Your task to perform on an android device: change the clock style Image 0: 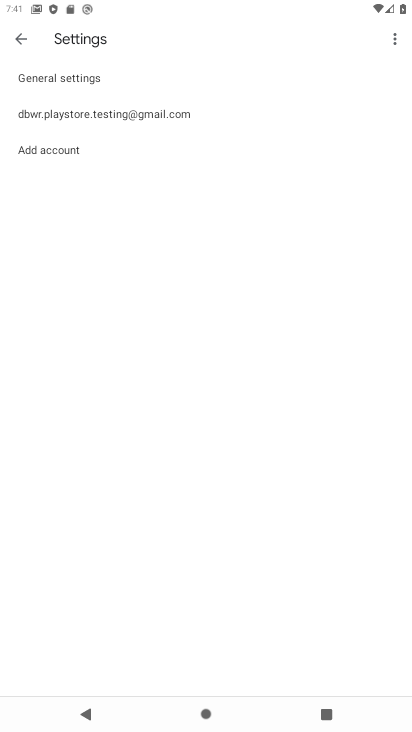
Step 0: press home button
Your task to perform on an android device: change the clock style Image 1: 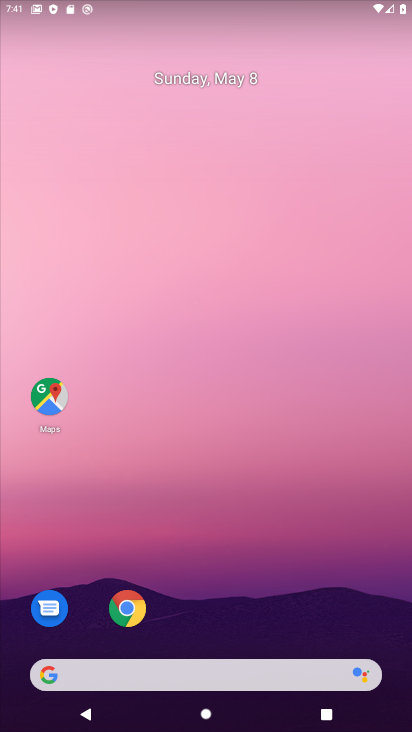
Step 1: drag from (229, 488) to (229, 127)
Your task to perform on an android device: change the clock style Image 2: 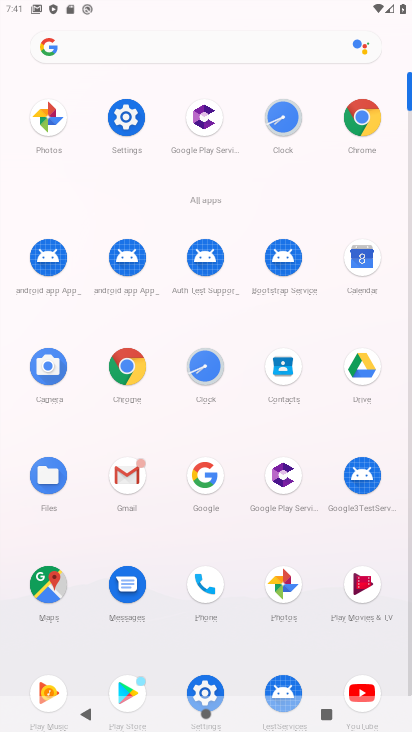
Step 2: click (209, 379)
Your task to perform on an android device: change the clock style Image 3: 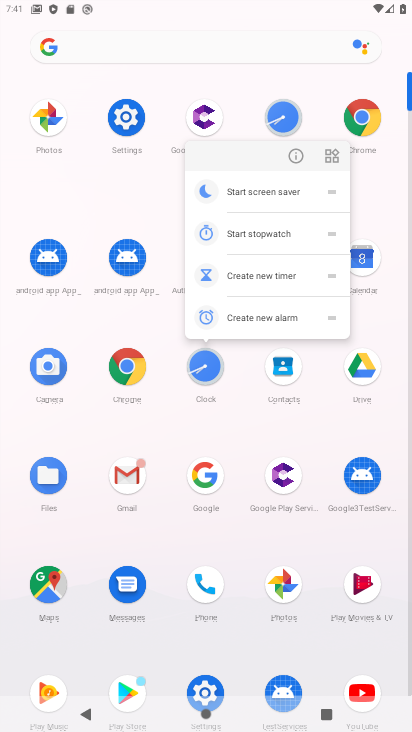
Step 3: click (212, 364)
Your task to perform on an android device: change the clock style Image 4: 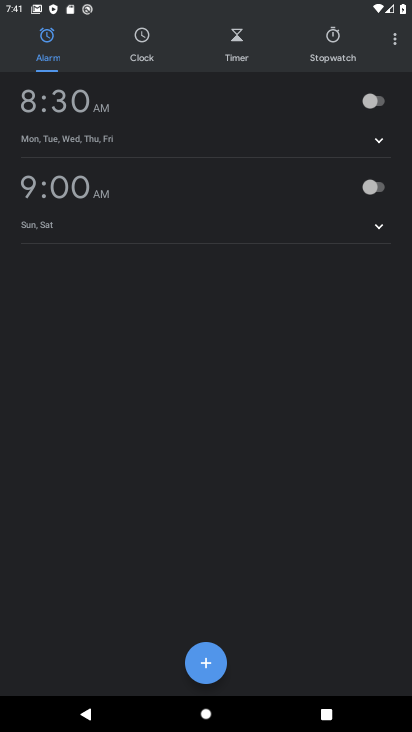
Step 4: click (393, 45)
Your task to perform on an android device: change the clock style Image 5: 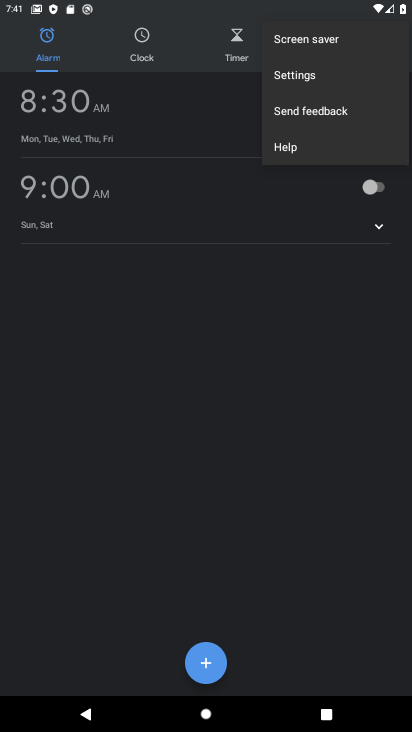
Step 5: click (324, 75)
Your task to perform on an android device: change the clock style Image 6: 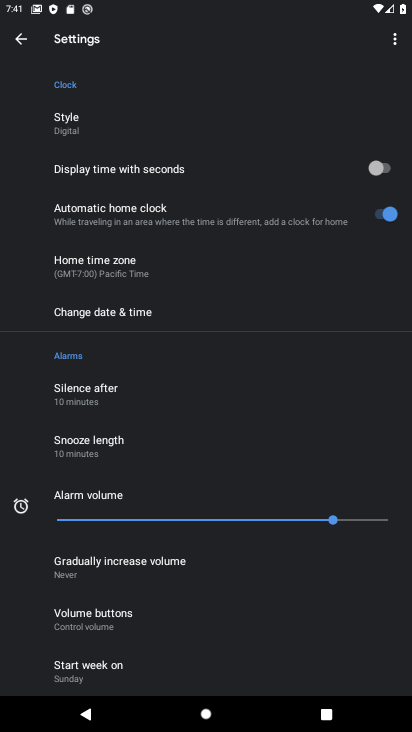
Step 6: click (97, 127)
Your task to perform on an android device: change the clock style Image 7: 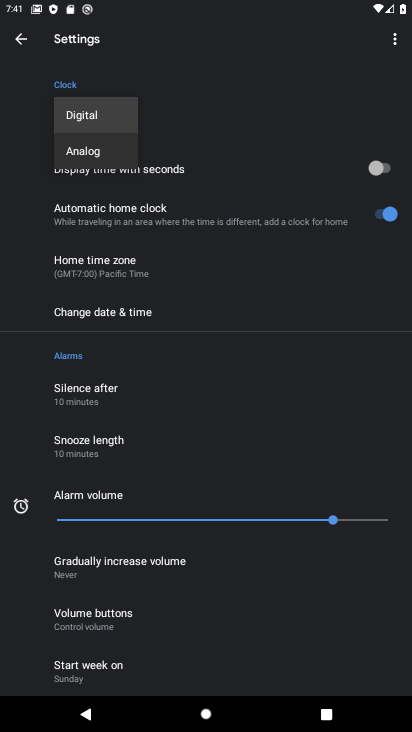
Step 7: click (109, 157)
Your task to perform on an android device: change the clock style Image 8: 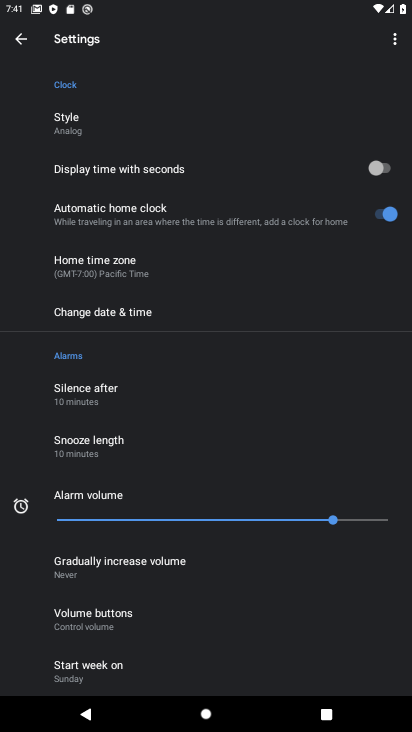
Step 8: task complete